Your task to perform on an android device: What's the weather today? Image 0: 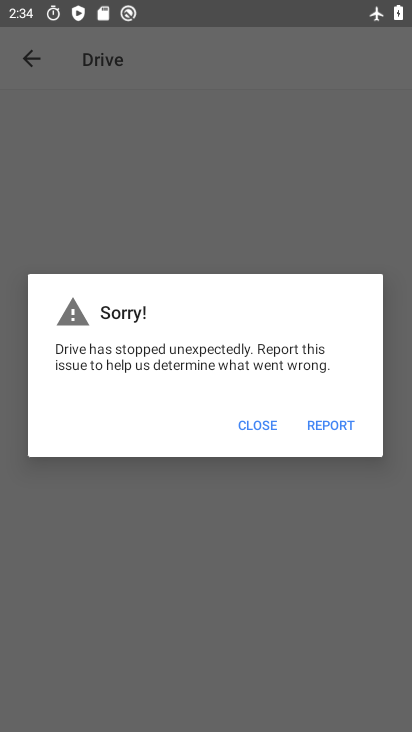
Step 0: press back button
Your task to perform on an android device: What's the weather today? Image 1: 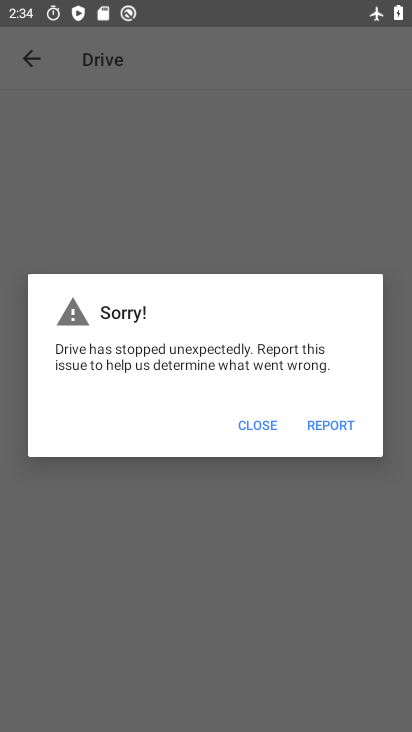
Step 1: press home button
Your task to perform on an android device: What's the weather today? Image 2: 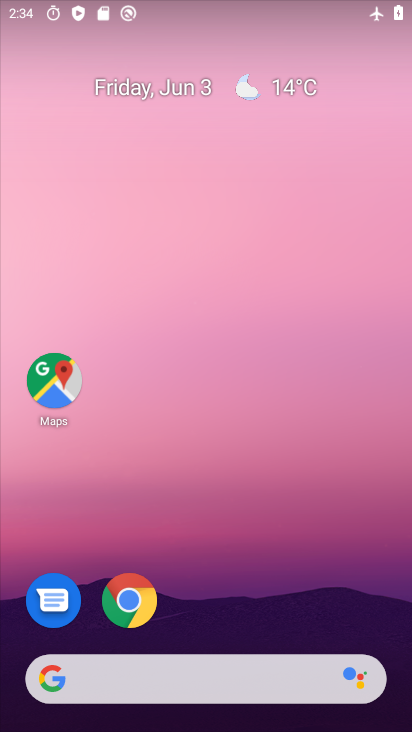
Step 2: drag from (303, 602) to (318, 31)
Your task to perform on an android device: What's the weather today? Image 3: 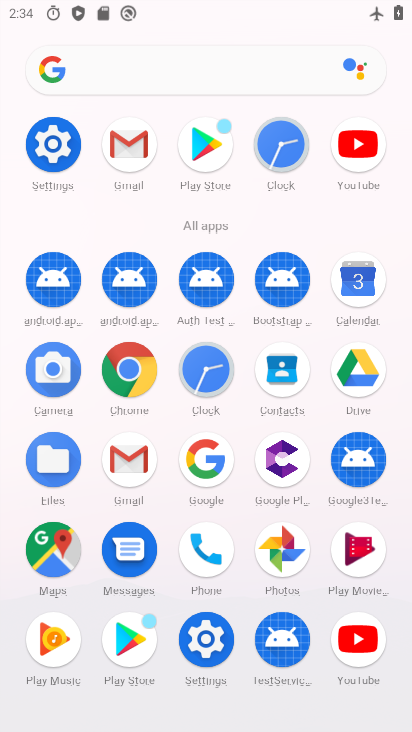
Step 3: click (122, 363)
Your task to perform on an android device: What's the weather today? Image 4: 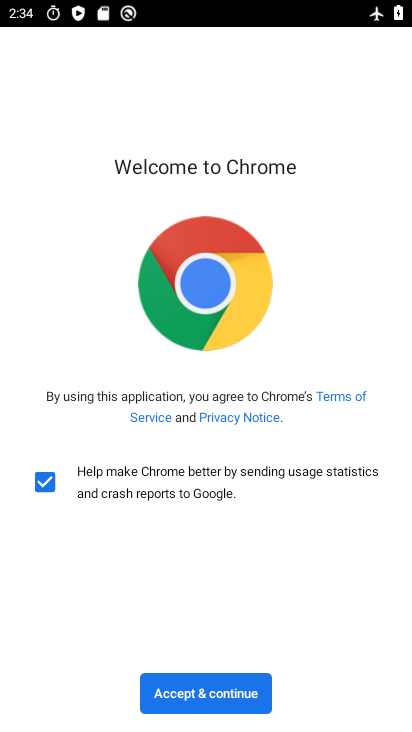
Step 4: click (244, 702)
Your task to perform on an android device: What's the weather today? Image 5: 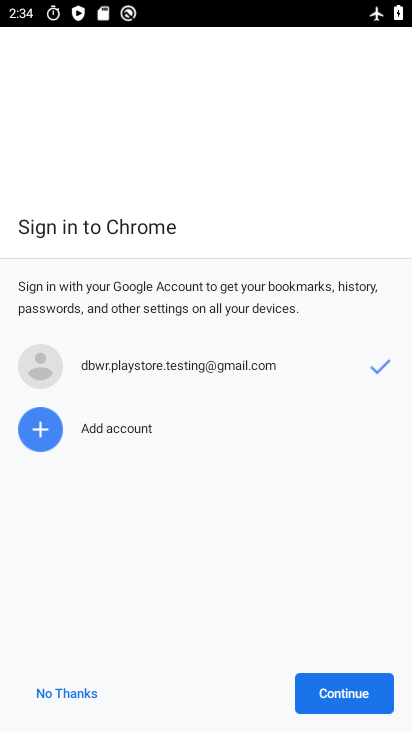
Step 5: click (307, 687)
Your task to perform on an android device: What's the weather today? Image 6: 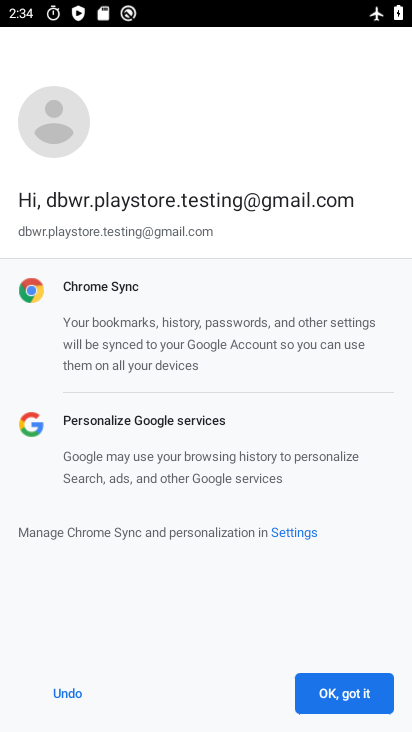
Step 6: click (309, 686)
Your task to perform on an android device: What's the weather today? Image 7: 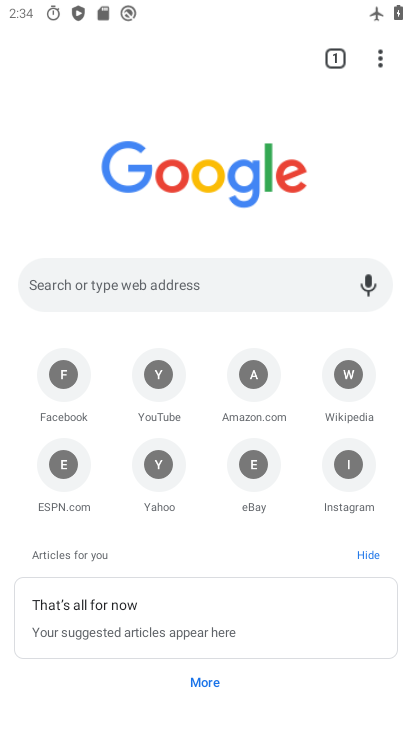
Step 7: click (210, 281)
Your task to perform on an android device: What's the weather today? Image 8: 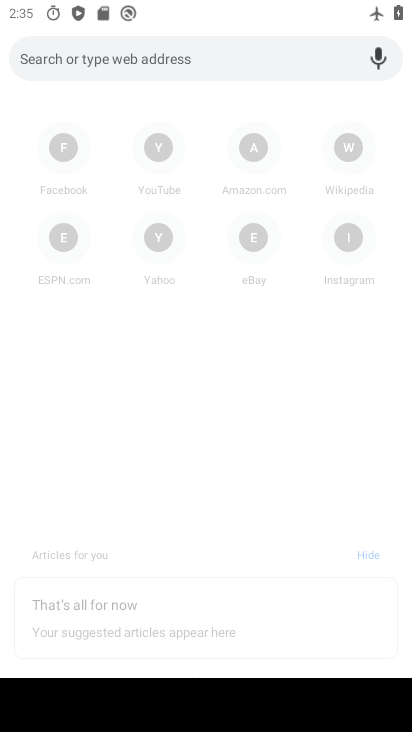
Step 8: type "What's the weather today?"
Your task to perform on an android device: What's the weather today? Image 9: 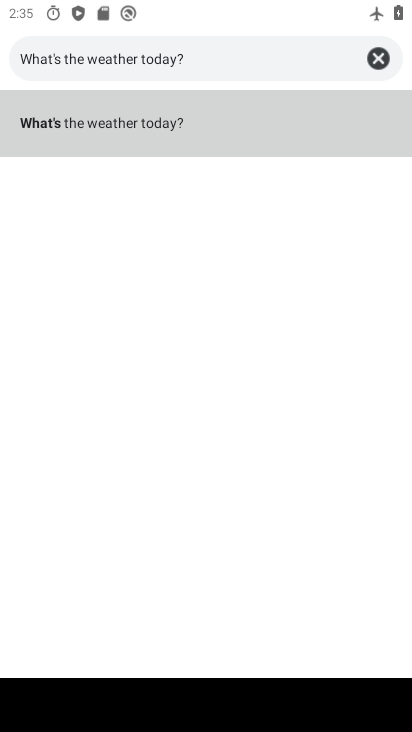
Step 9: click (107, 112)
Your task to perform on an android device: What's the weather today? Image 10: 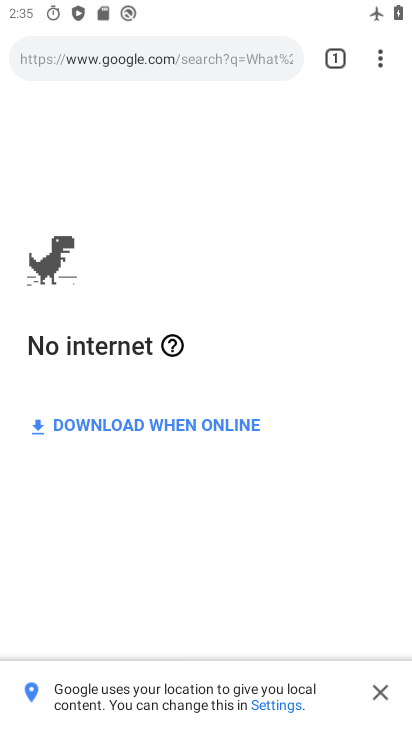
Step 10: task complete